Your task to perform on an android device: Go to Android settings Image 0: 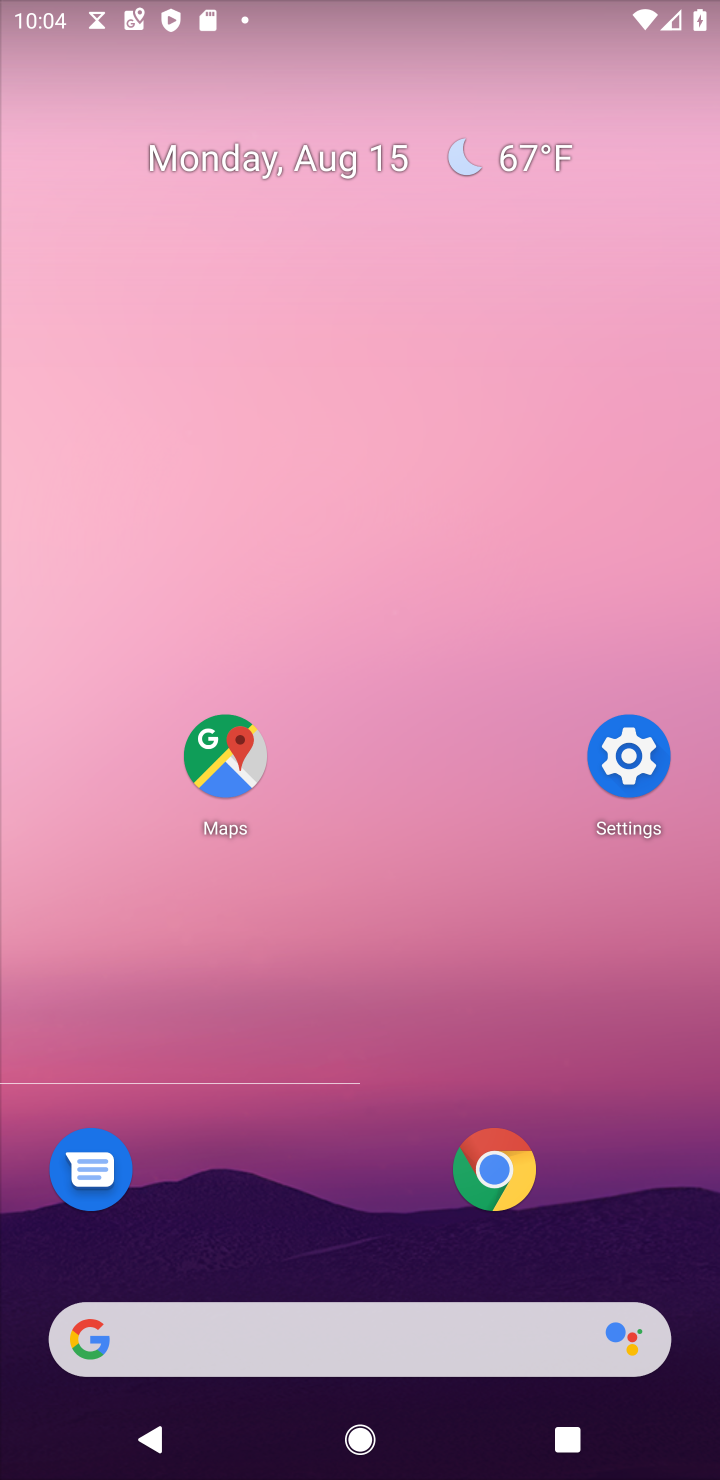
Step 0: press home button
Your task to perform on an android device: Go to Android settings Image 1: 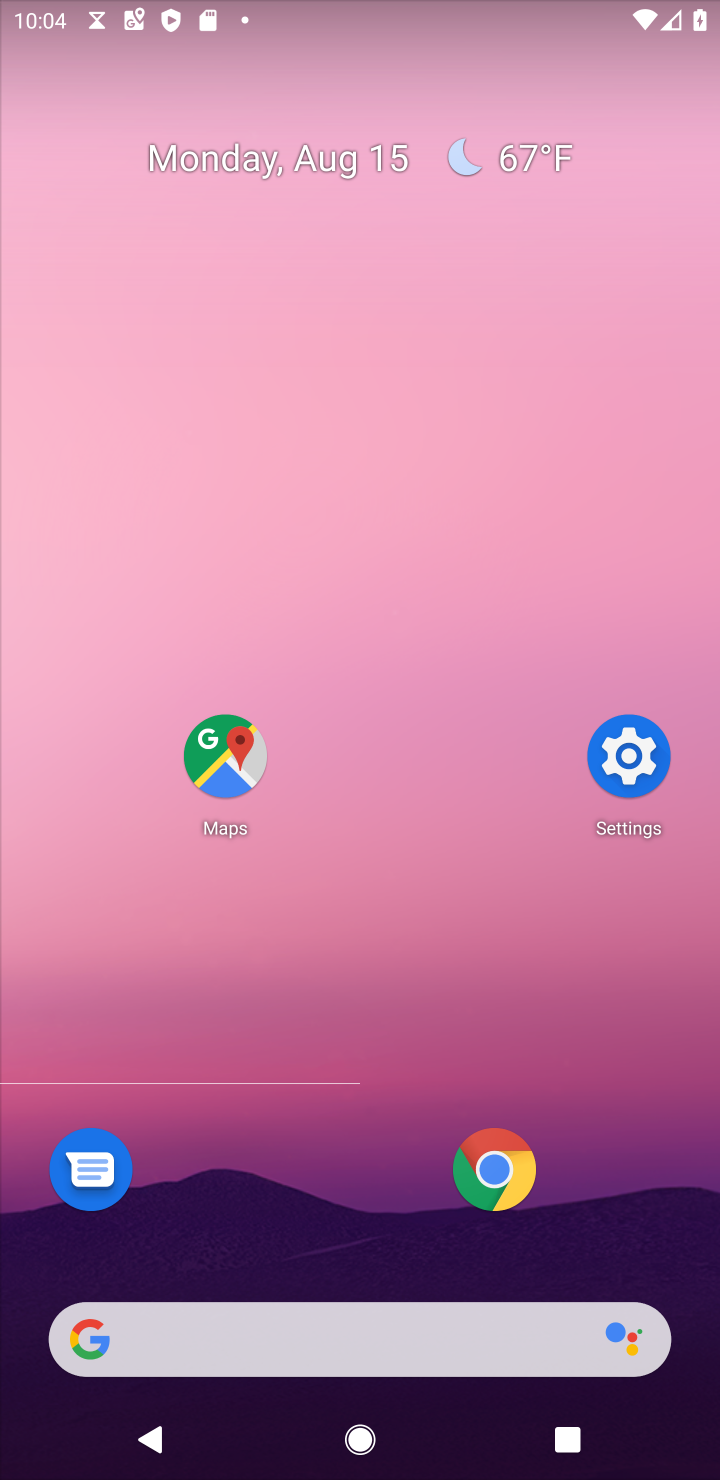
Step 1: click (629, 765)
Your task to perform on an android device: Go to Android settings Image 2: 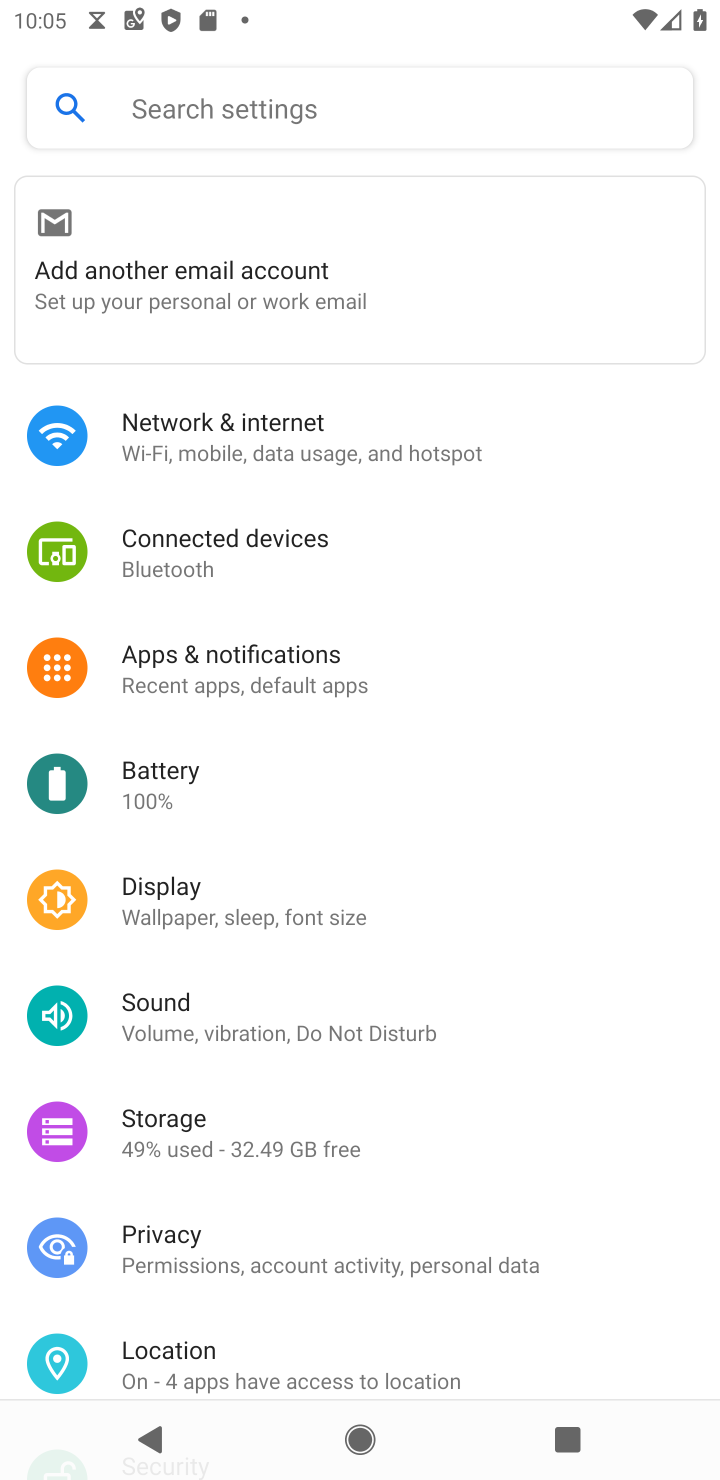
Step 2: task complete